Your task to perform on an android device: Go to Google maps Image 0: 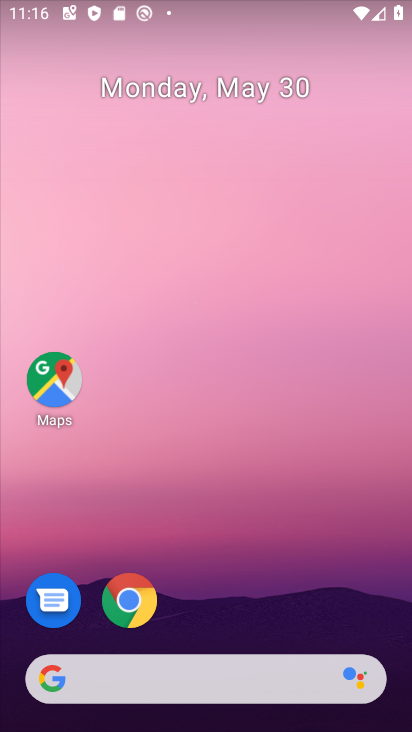
Step 0: drag from (214, 727) to (209, 142)
Your task to perform on an android device: Go to Google maps Image 1: 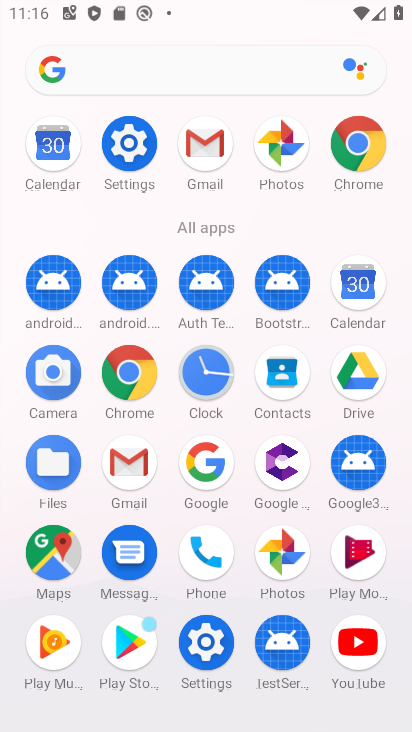
Step 1: click (52, 562)
Your task to perform on an android device: Go to Google maps Image 2: 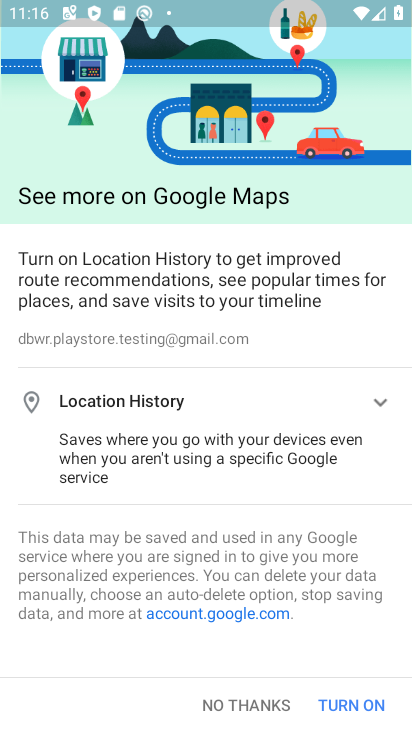
Step 2: click (249, 700)
Your task to perform on an android device: Go to Google maps Image 3: 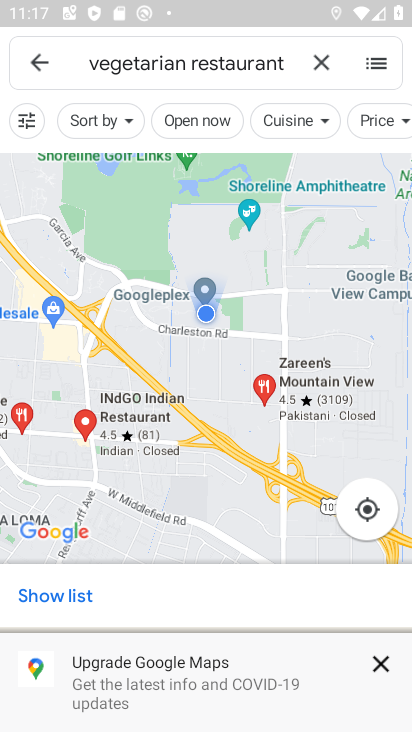
Step 3: task complete